Your task to perform on an android device: Open ESPN.com Image 0: 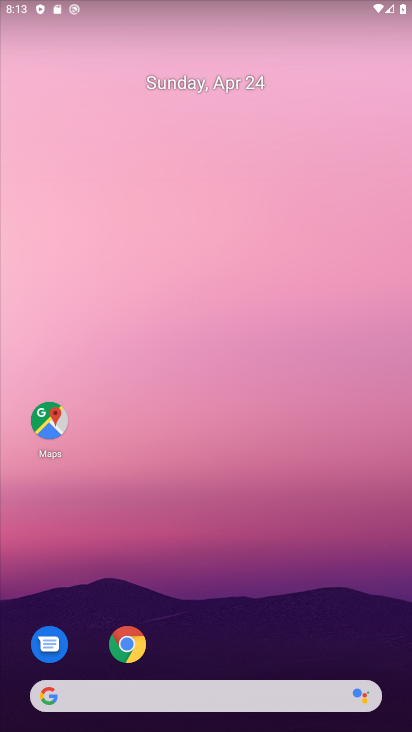
Step 0: click (282, 151)
Your task to perform on an android device: Open ESPN.com Image 1: 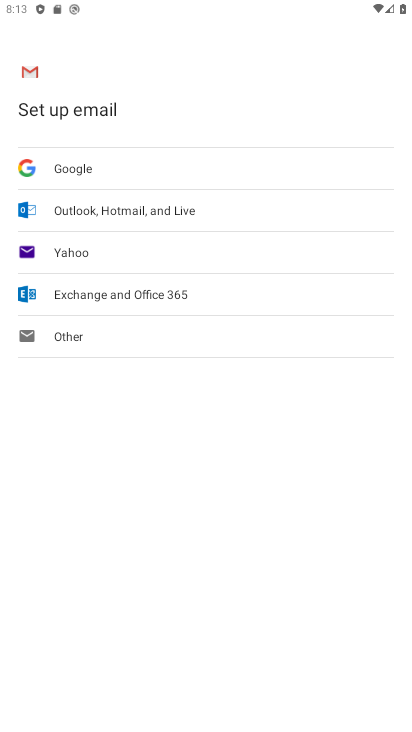
Step 1: press home button
Your task to perform on an android device: Open ESPN.com Image 2: 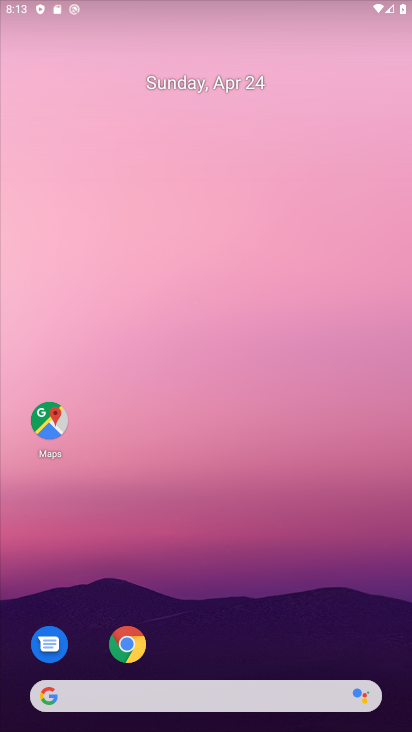
Step 2: drag from (199, 587) to (201, 18)
Your task to perform on an android device: Open ESPN.com Image 3: 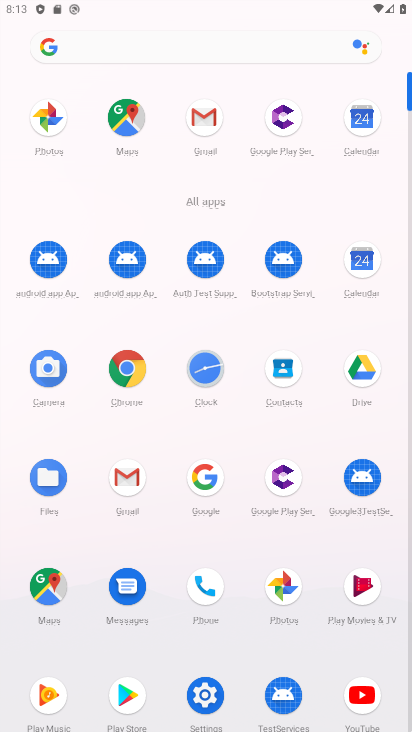
Step 3: click (128, 372)
Your task to perform on an android device: Open ESPN.com Image 4: 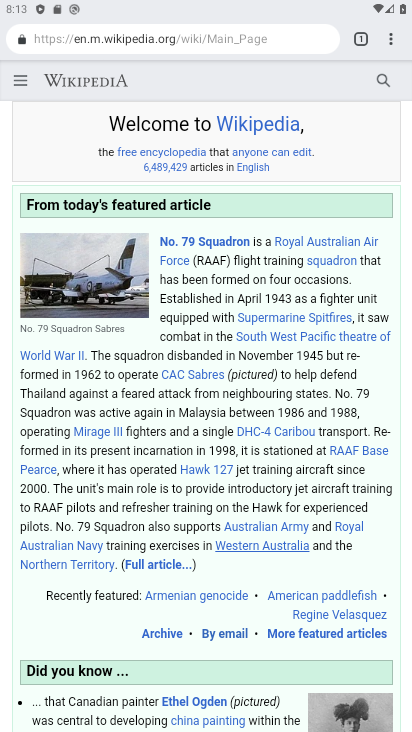
Step 4: drag from (216, 570) to (227, 125)
Your task to perform on an android device: Open ESPN.com Image 5: 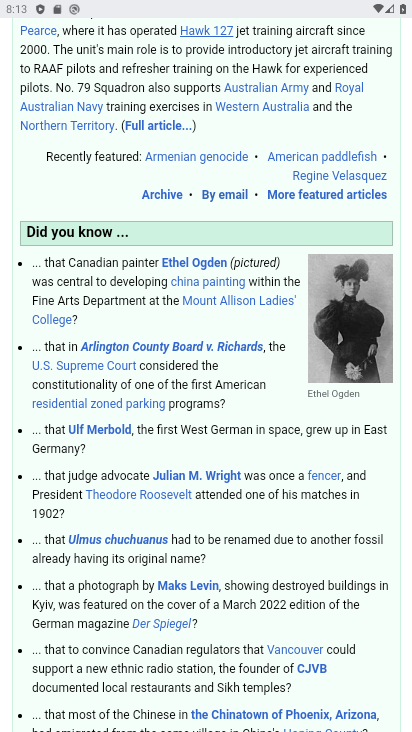
Step 5: drag from (228, 118) to (224, 713)
Your task to perform on an android device: Open ESPN.com Image 6: 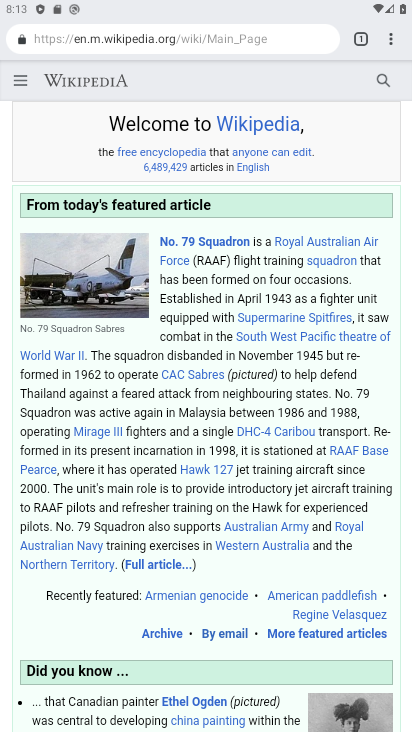
Step 6: click (283, 37)
Your task to perform on an android device: Open ESPN.com Image 7: 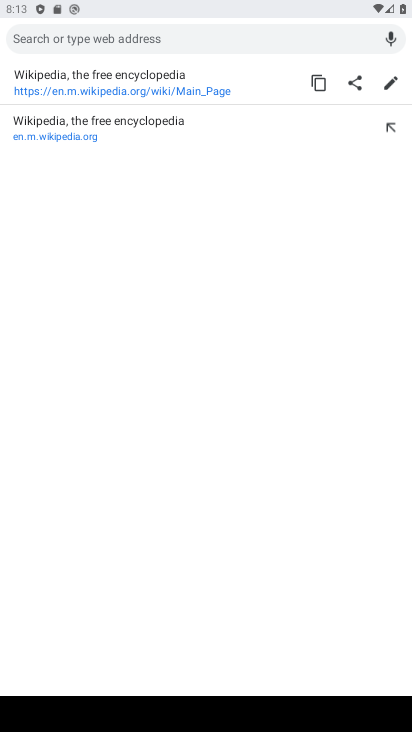
Step 7: type "espn"
Your task to perform on an android device: Open ESPN.com Image 8: 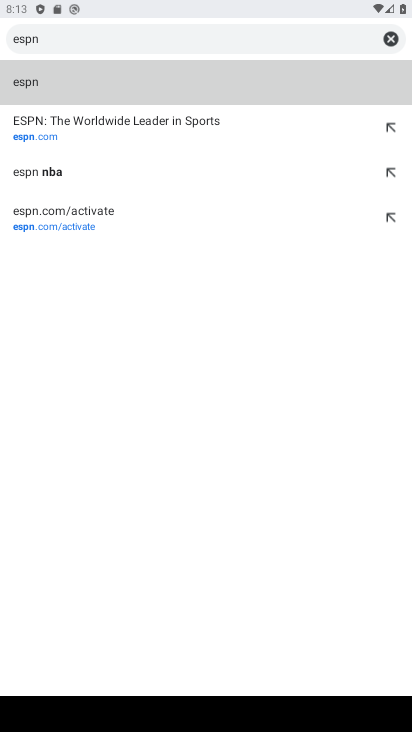
Step 8: click (68, 129)
Your task to perform on an android device: Open ESPN.com Image 9: 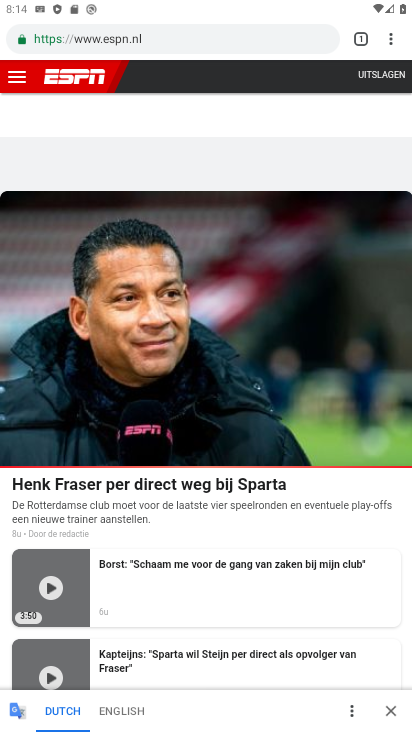
Step 9: task complete